Your task to perform on an android device: Go to Yahoo.com Image 0: 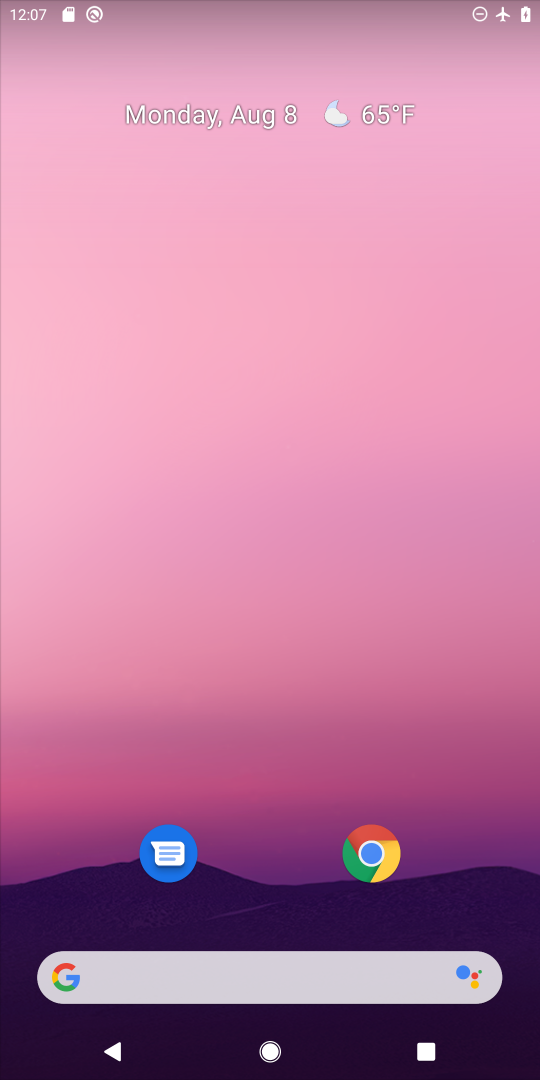
Step 0: drag from (224, 897) to (273, 224)
Your task to perform on an android device: Go to Yahoo.com Image 1: 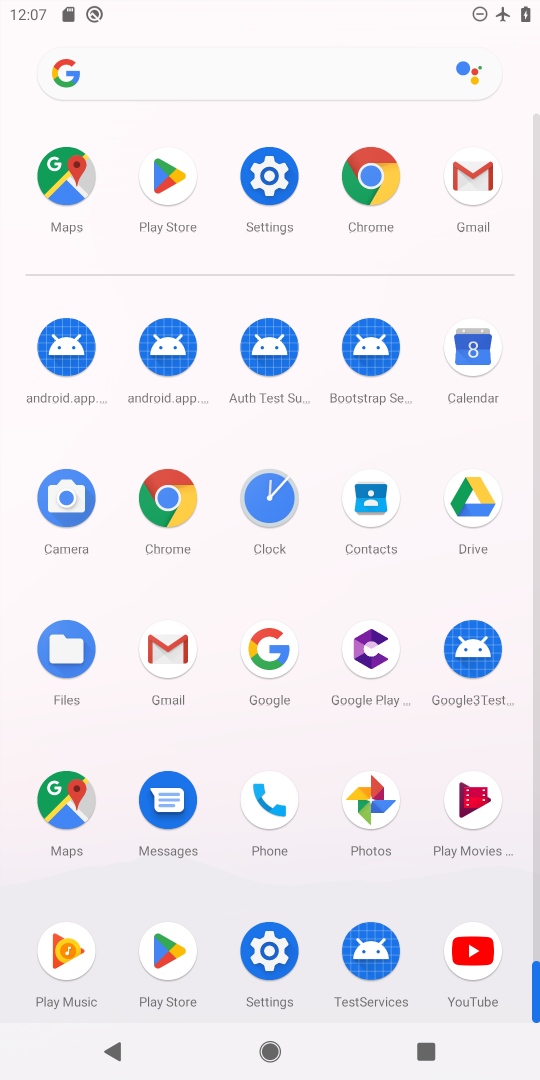
Step 1: click (359, 170)
Your task to perform on an android device: Go to Yahoo.com Image 2: 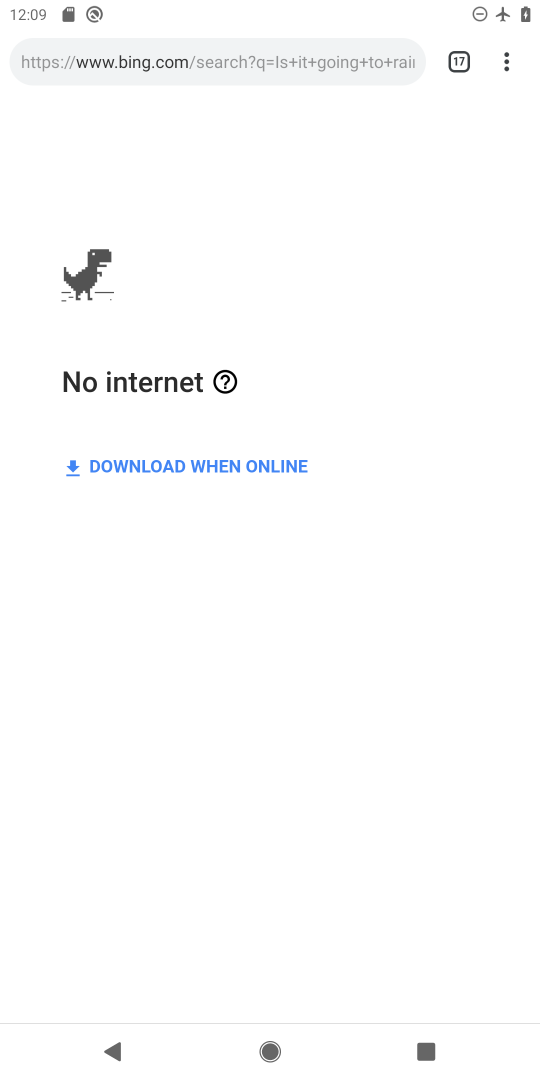
Step 2: task complete